Your task to perform on an android device: Go to Maps Image 0: 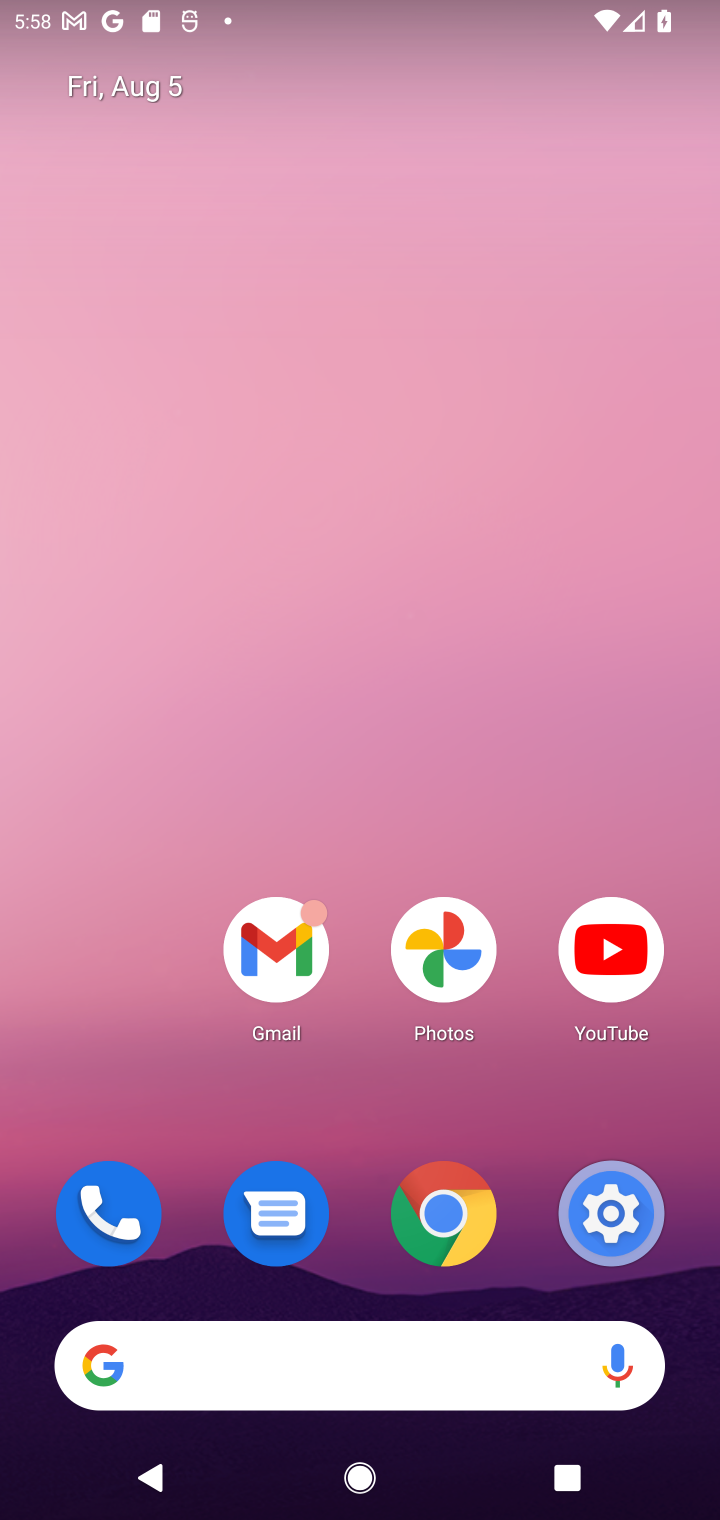
Step 0: drag from (371, 1287) to (330, 546)
Your task to perform on an android device: Go to Maps Image 1: 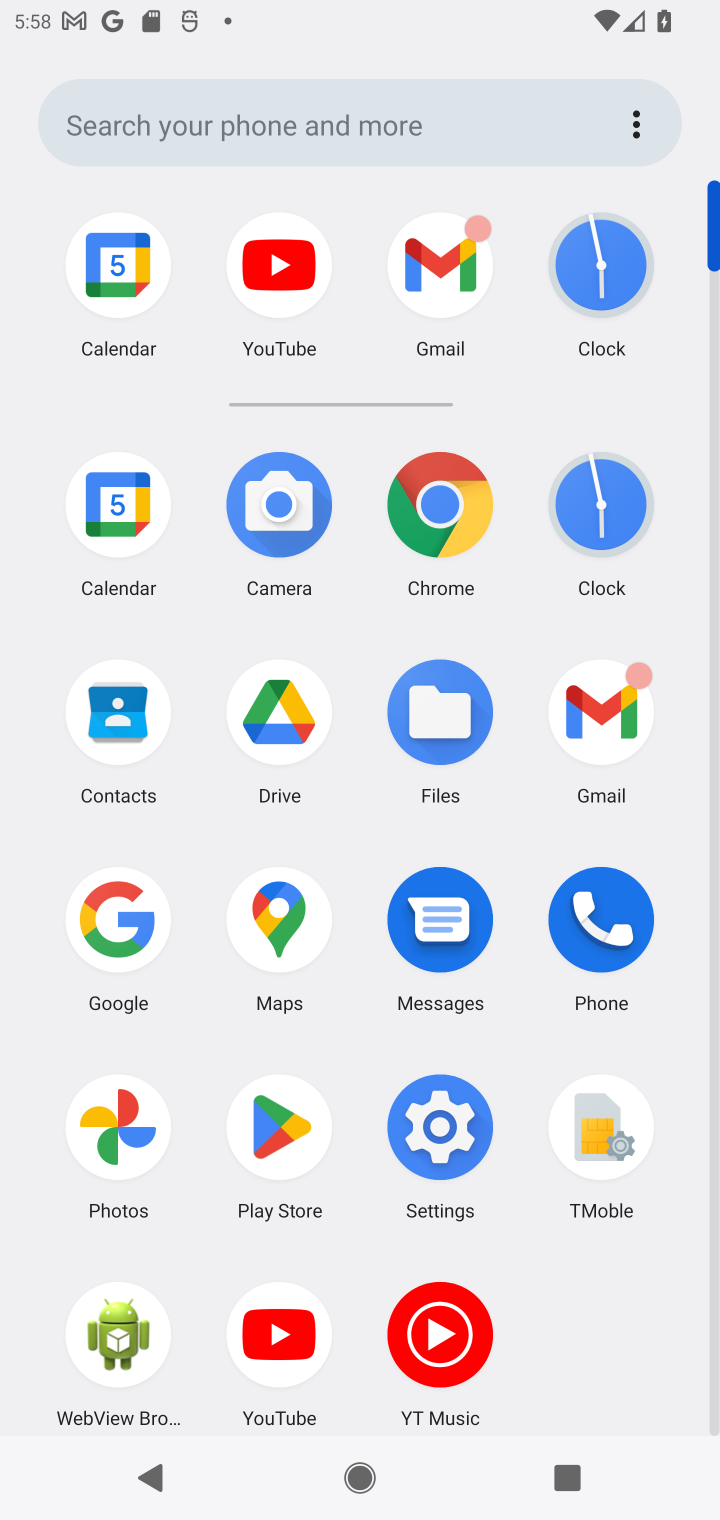
Step 1: click (288, 979)
Your task to perform on an android device: Go to Maps Image 2: 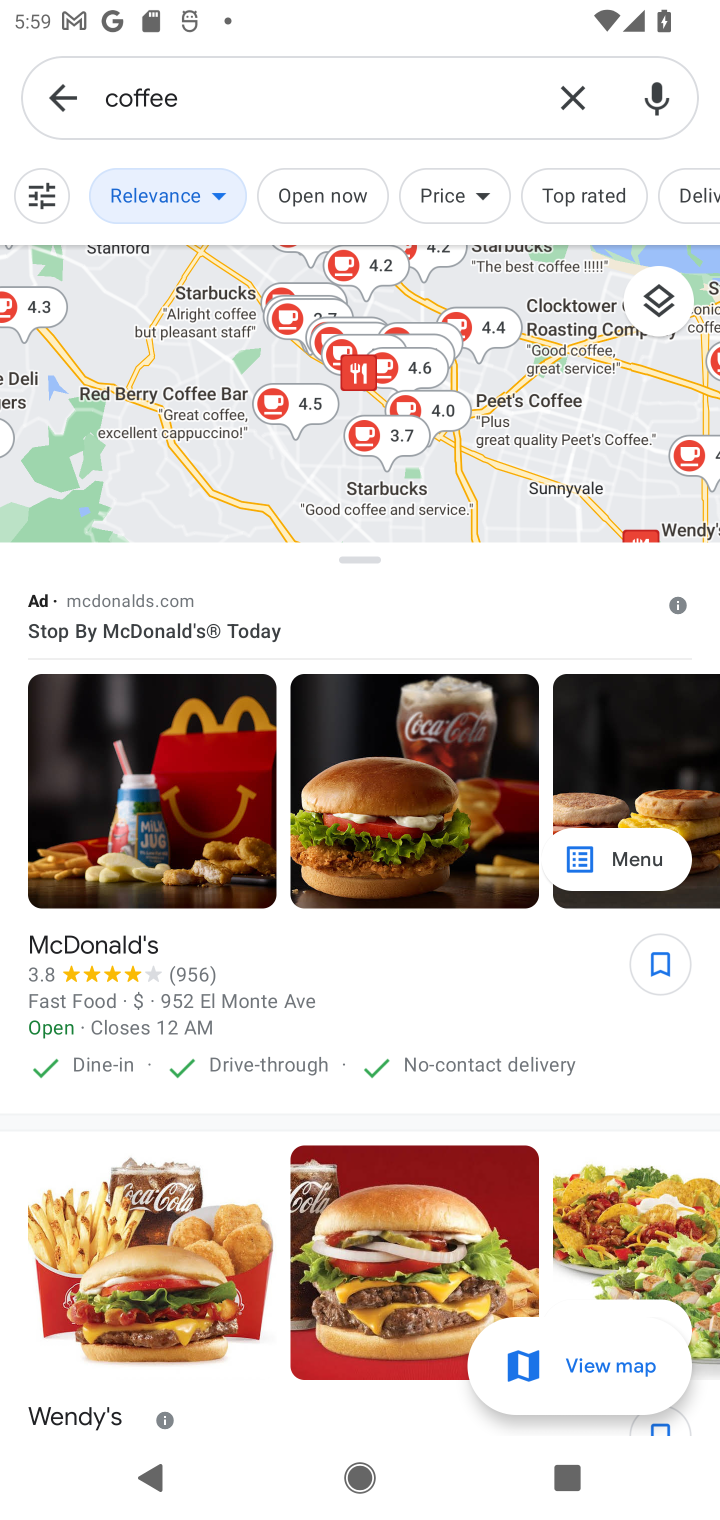
Step 2: task complete